Your task to perform on an android device: turn off translation in the chrome app Image 0: 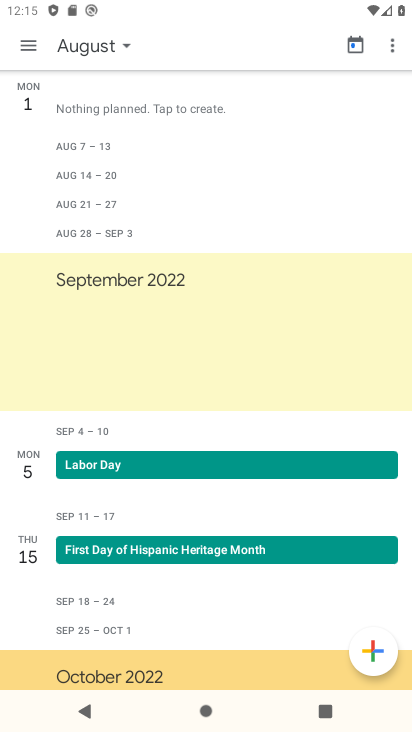
Step 0: press home button
Your task to perform on an android device: turn off translation in the chrome app Image 1: 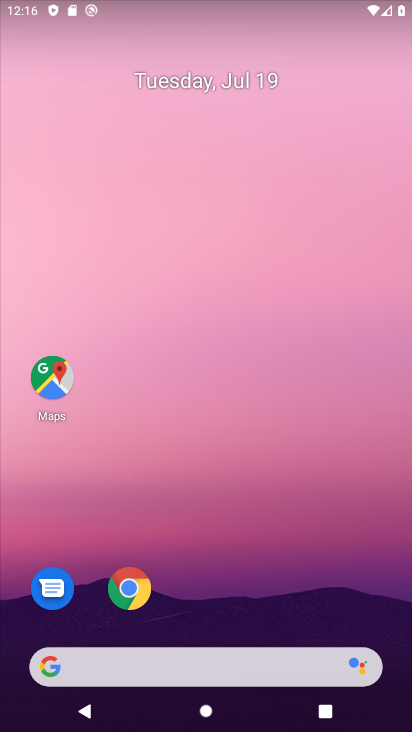
Step 1: click (125, 590)
Your task to perform on an android device: turn off translation in the chrome app Image 2: 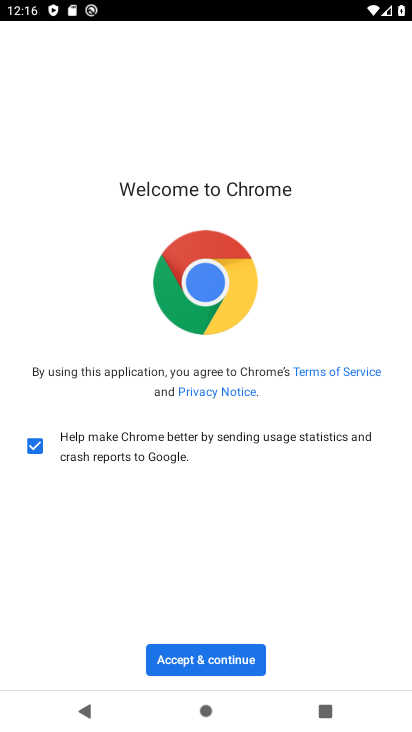
Step 2: click (207, 649)
Your task to perform on an android device: turn off translation in the chrome app Image 3: 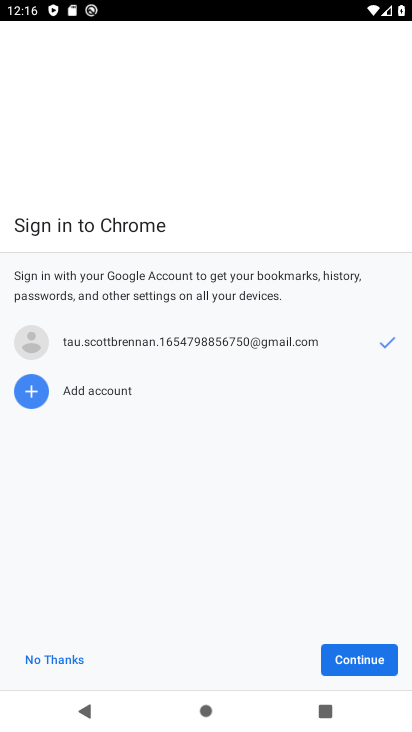
Step 3: click (387, 655)
Your task to perform on an android device: turn off translation in the chrome app Image 4: 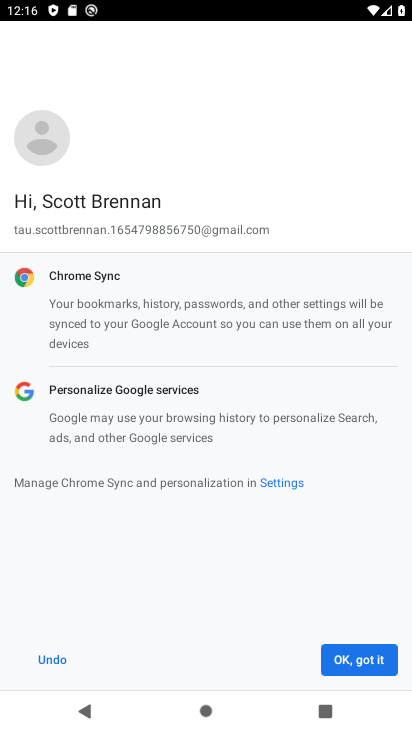
Step 4: click (386, 653)
Your task to perform on an android device: turn off translation in the chrome app Image 5: 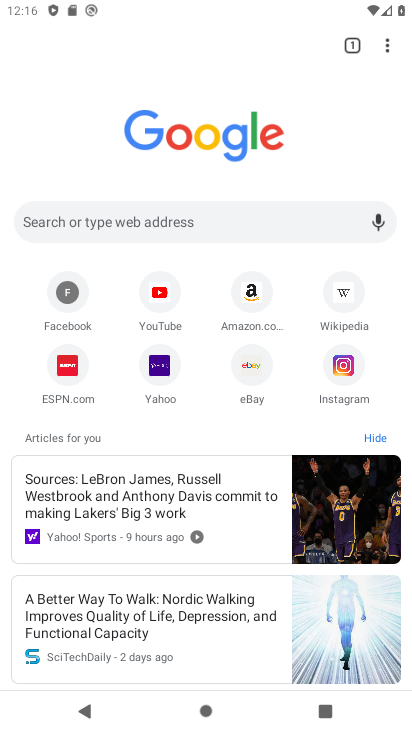
Step 5: click (385, 44)
Your task to perform on an android device: turn off translation in the chrome app Image 6: 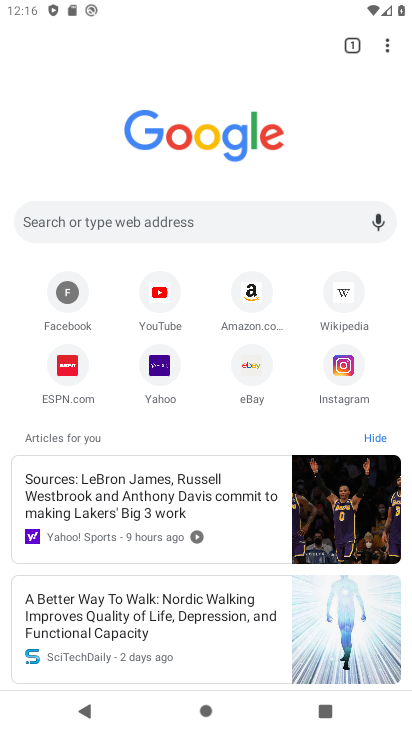
Step 6: click (387, 47)
Your task to perform on an android device: turn off translation in the chrome app Image 7: 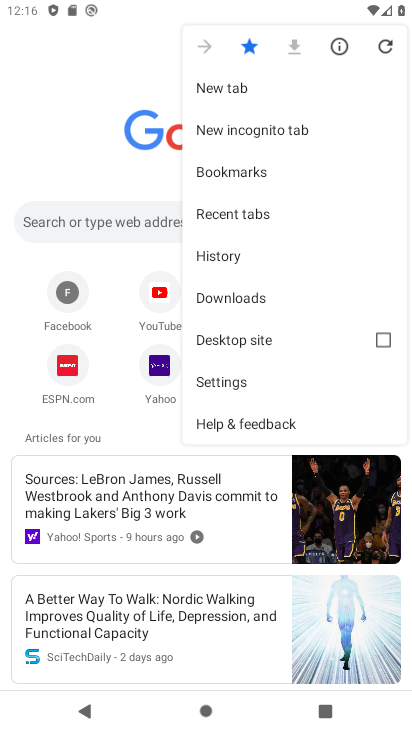
Step 7: click (212, 377)
Your task to perform on an android device: turn off translation in the chrome app Image 8: 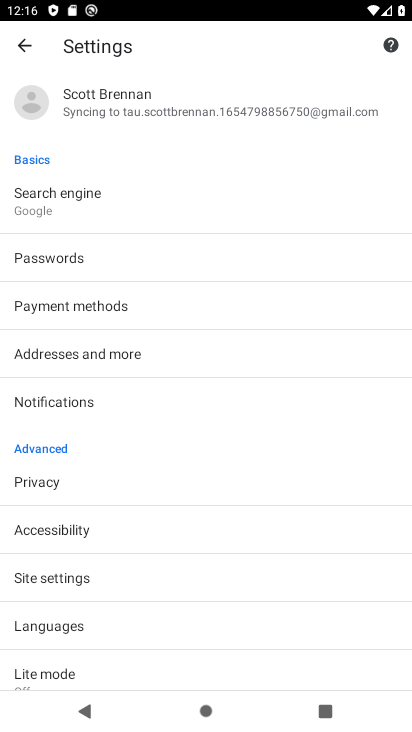
Step 8: click (47, 629)
Your task to perform on an android device: turn off translation in the chrome app Image 9: 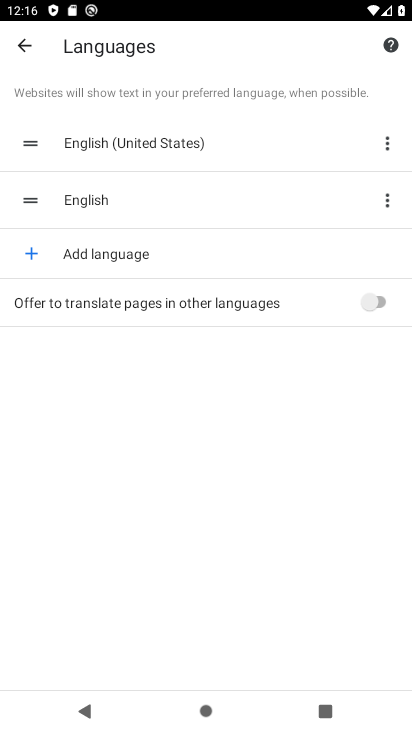
Step 9: click (376, 298)
Your task to perform on an android device: turn off translation in the chrome app Image 10: 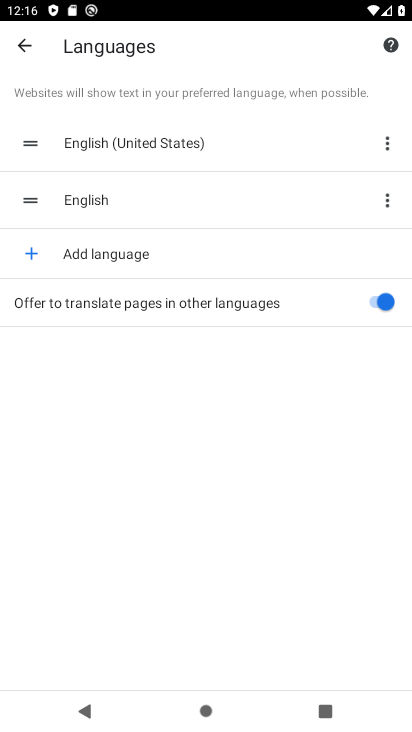
Step 10: click (367, 298)
Your task to perform on an android device: turn off translation in the chrome app Image 11: 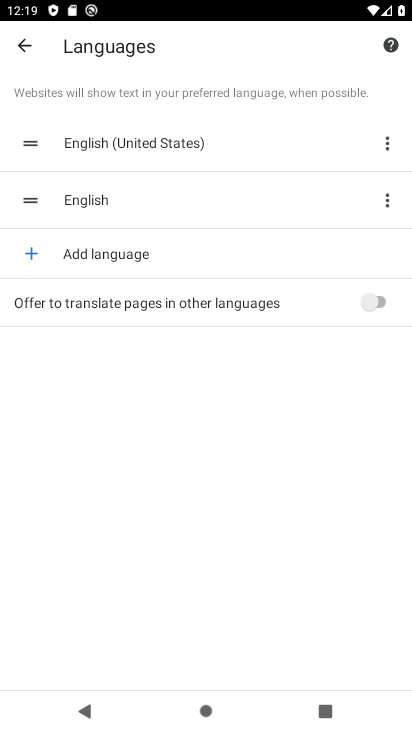
Step 11: task complete